Your task to perform on an android device: Open the calendar app, open the side menu, and click the "Day" option Image 0: 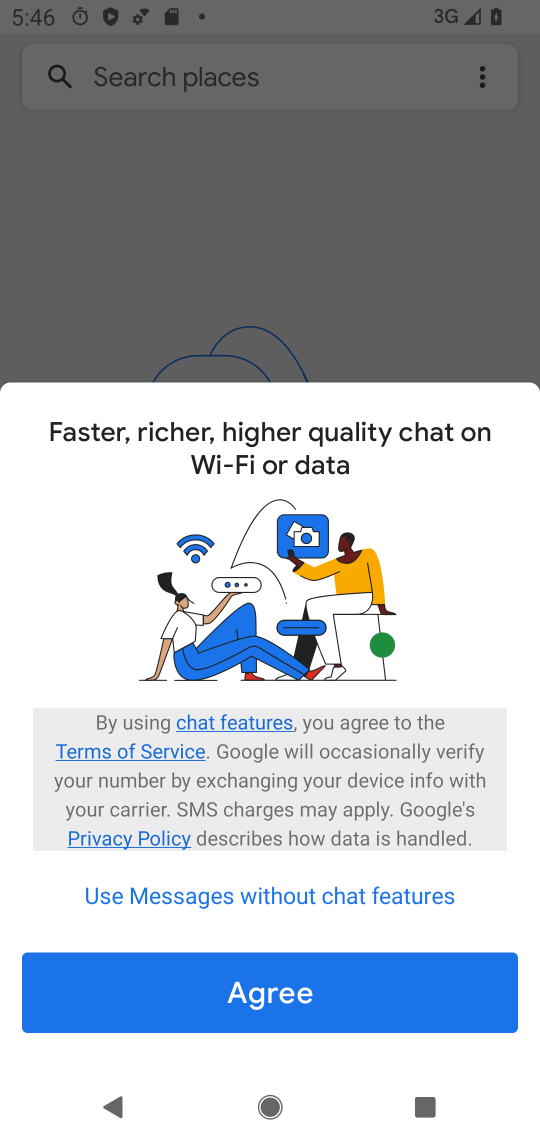
Step 0: press home button
Your task to perform on an android device: Open the calendar app, open the side menu, and click the "Day" option Image 1: 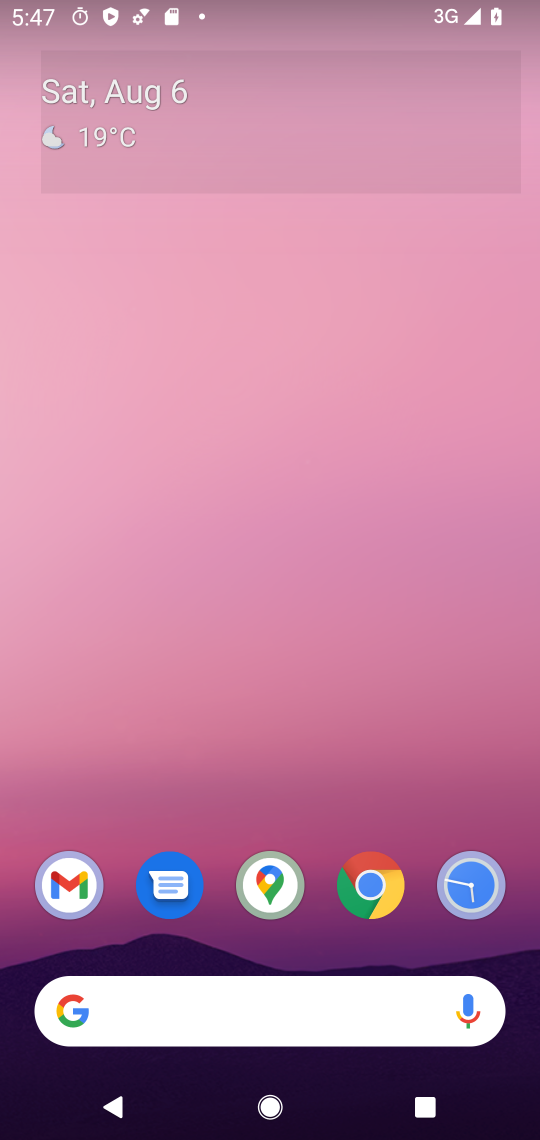
Step 1: drag from (328, 866) to (238, 2)
Your task to perform on an android device: Open the calendar app, open the side menu, and click the "Day" option Image 2: 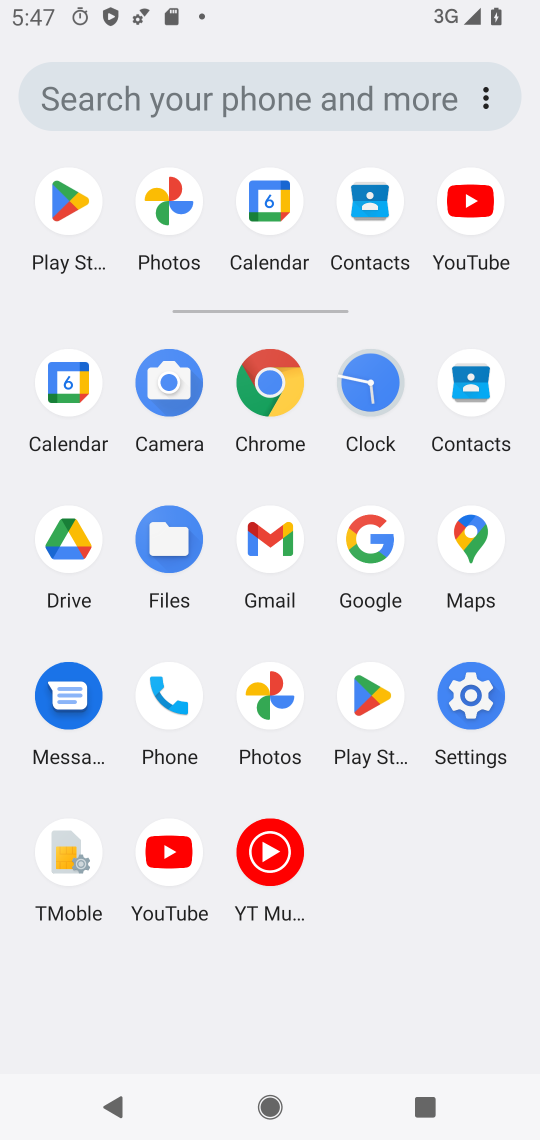
Step 2: click (73, 389)
Your task to perform on an android device: Open the calendar app, open the side menu, and click the "Day" option Image 3: 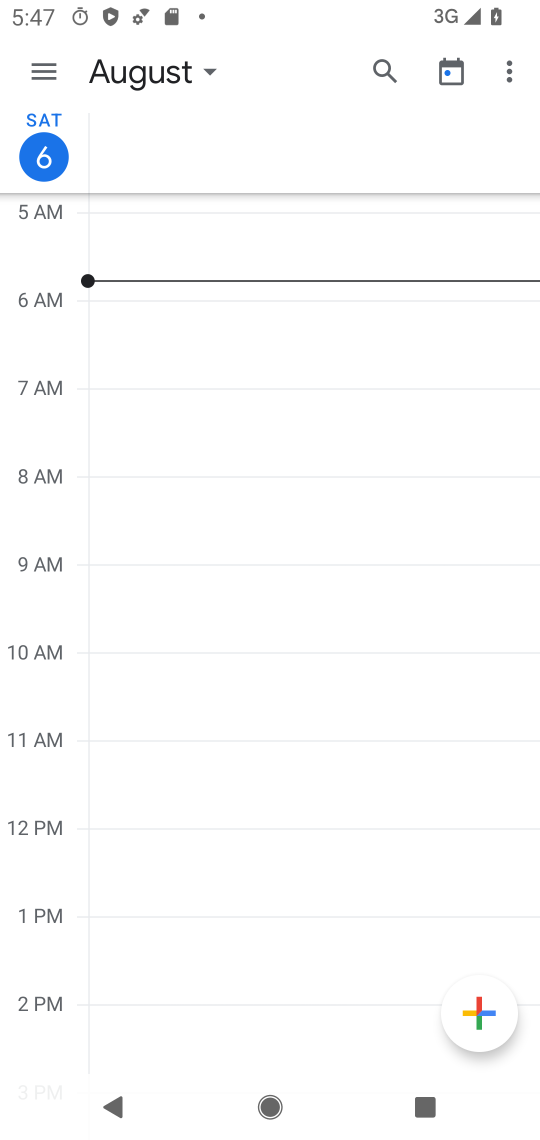
Step 3: click (45, 76)
Your task to perform on an android device: Open the calendar app, open the side menu, and click the "Day" option Image 4: 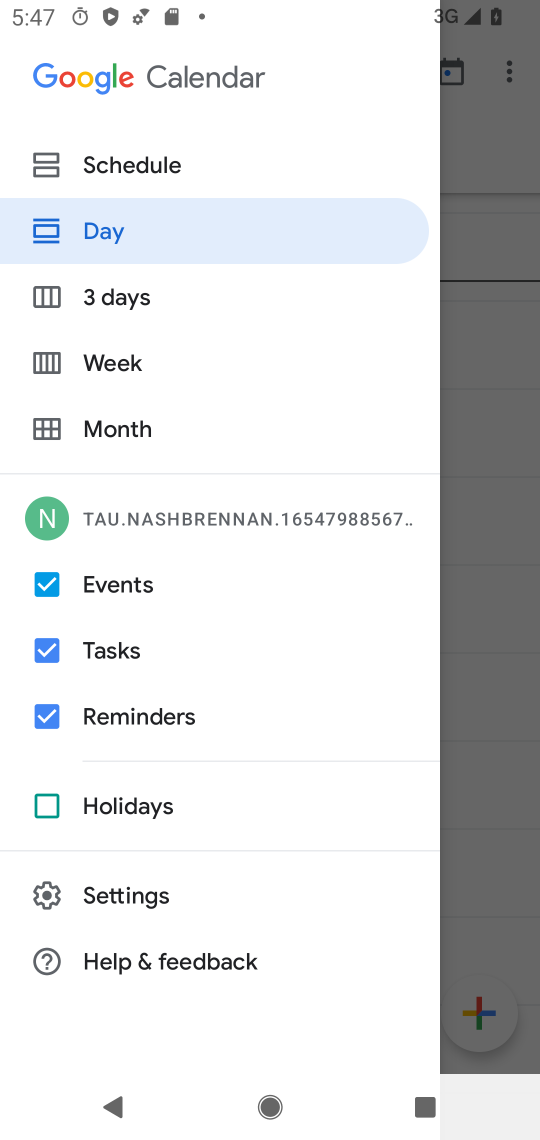
Step 4: click (230, 245)
Your task to perform on an android device: Open the calendar app, open the side menu, and click the "Day" option Image 5: 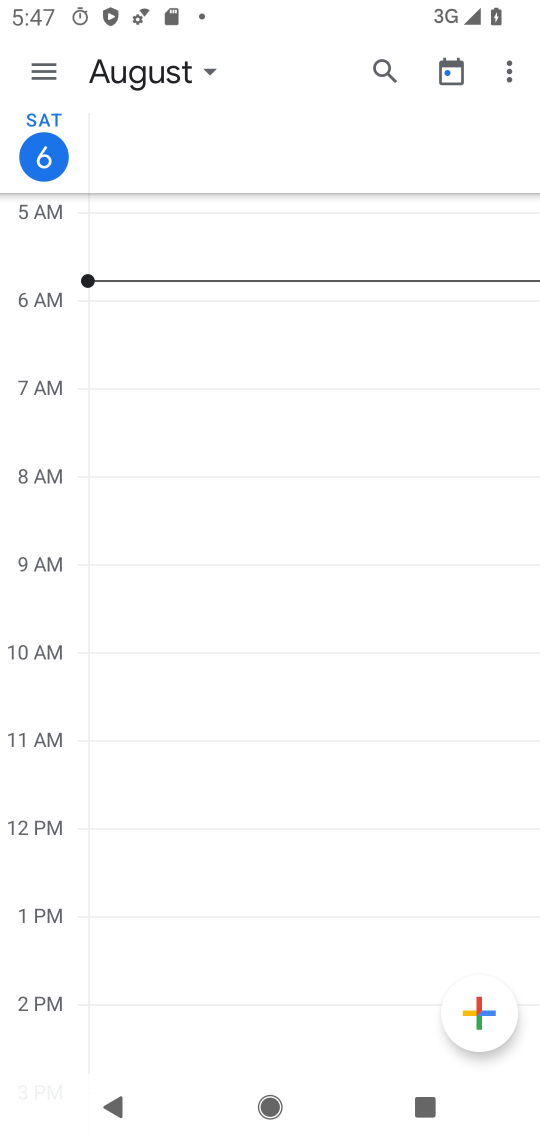
Step 5: task complete